Your task to perform on an android device: toggle priority inbox in the gmail app Image 0: 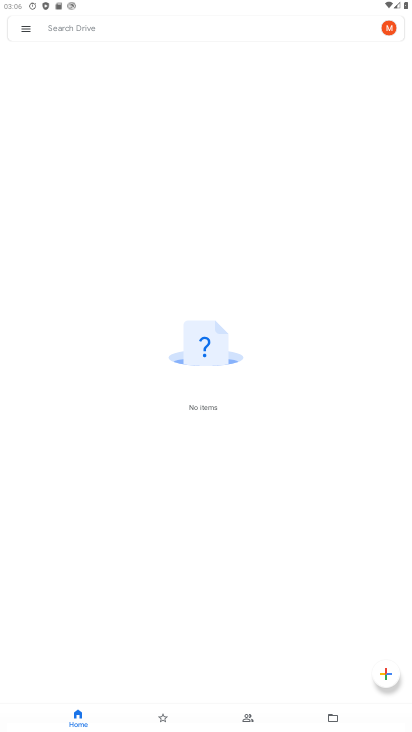
Step 0: press home button
Your task to perform on an android device: toggle priority inbox in the gmail app Image 1: 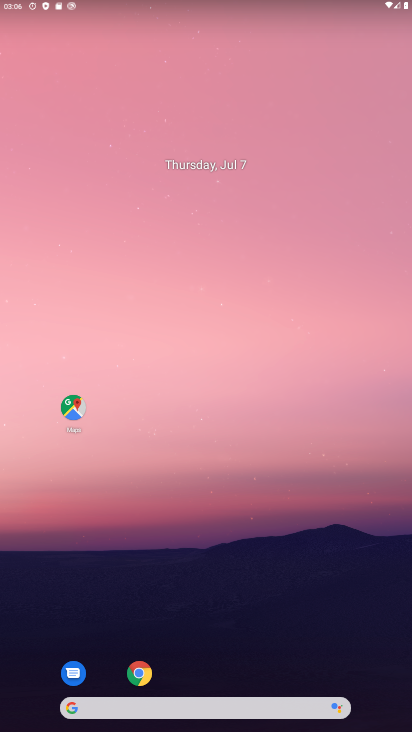
Step 1: drag from (199, 675) to (199, 171)
Your task to perform on an android device: toggle priority inbox in the gmail app Image 2: 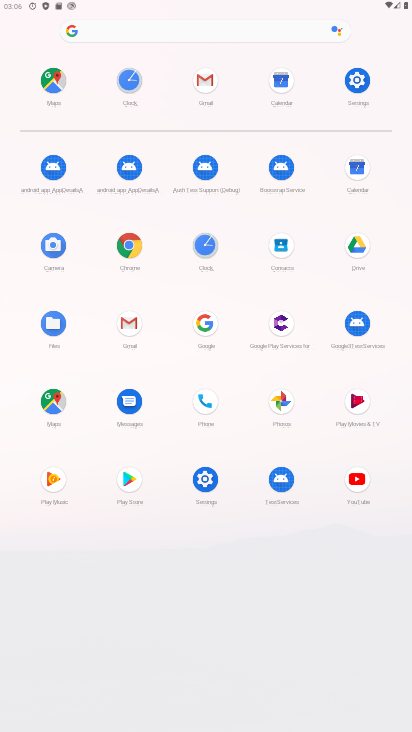
Step 2: click (211, 86)
Your task to perform on an android device: toggle priority inbox in the gmail app Image 3: 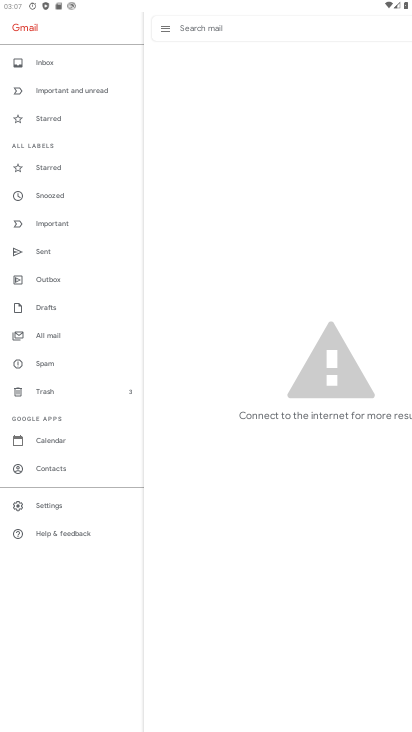
Step 3: click (74, 507)
Your task to perform on an android device: toggle priority inbox in the gmail app Image 4: 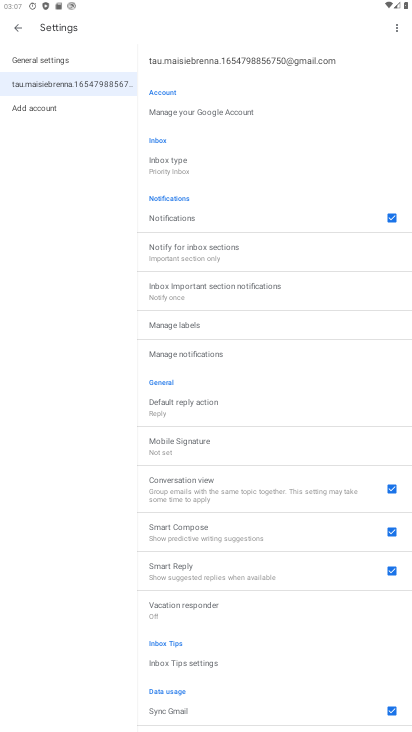
Step 4: drag from (243, 520) to (258, 178)
Your task to perform on an android device: toggle priority inbox in the gmail app Image 5: 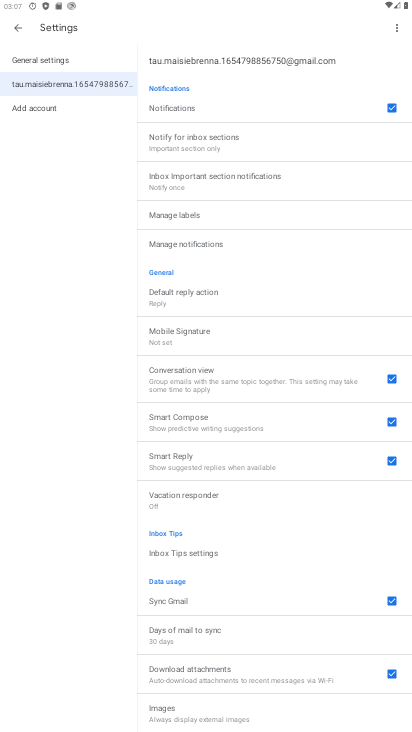
Step 5: drag from (214, 514) to (233, 176)
Your task to perform on an android device: toggle priority inbox in the gmail app Image 6: 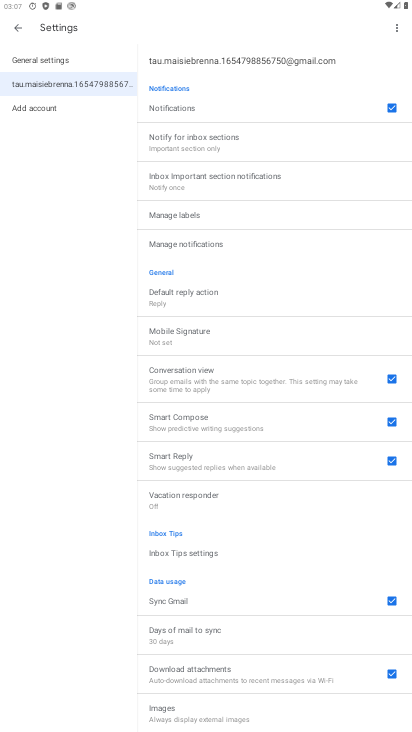
Step 6: drag from (201, 194) to (245, 612)
Your task to perform on an android device: toggle priority inbox in the gmail app Image 7: 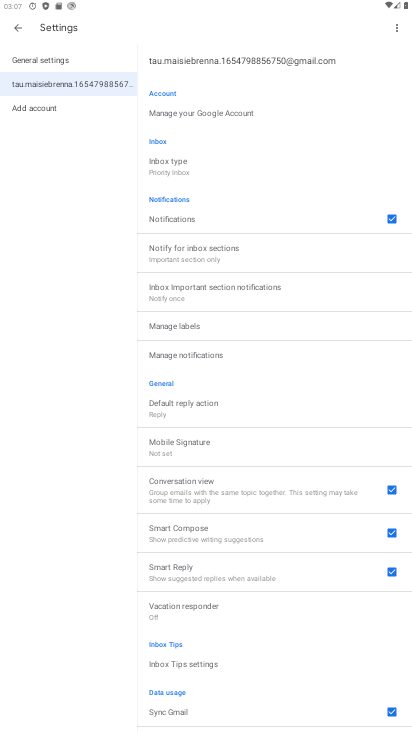
Step 7: click (203, 165)
Your task to perform on an android device: toggle priority inbox in the gmail app Image 8: 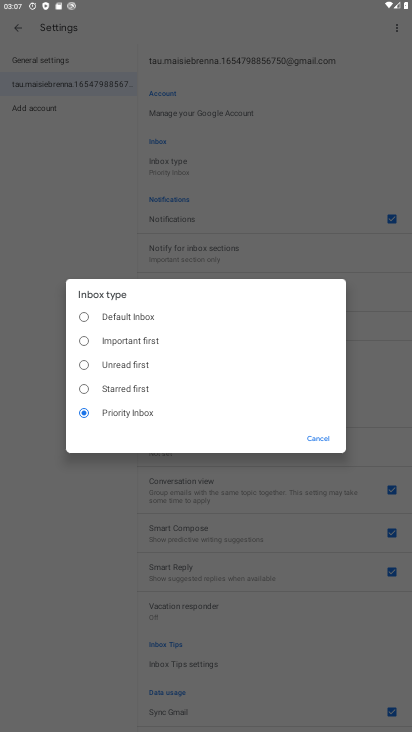
Step 8: click (109, 318)
Your task to perform on an android device: toggle priority inbox in the gmail app Image 9: 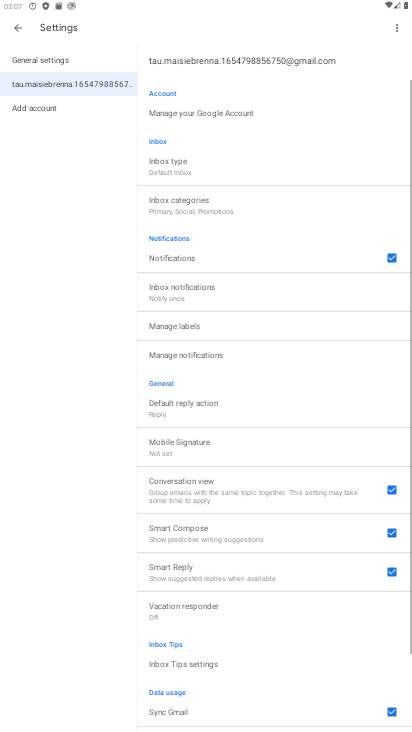
Step 9: task complete